Your task to perform on an android device: check android version Image 0: 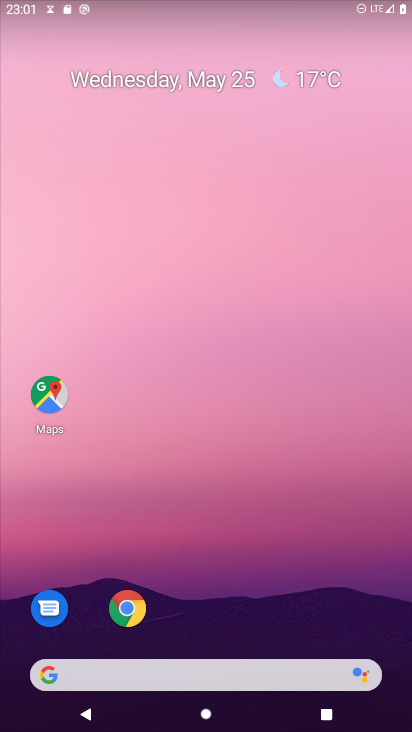
Step 0: drag from (257, 467) to (163, 98)
Your task to perform on an android device: check android version Image 1: 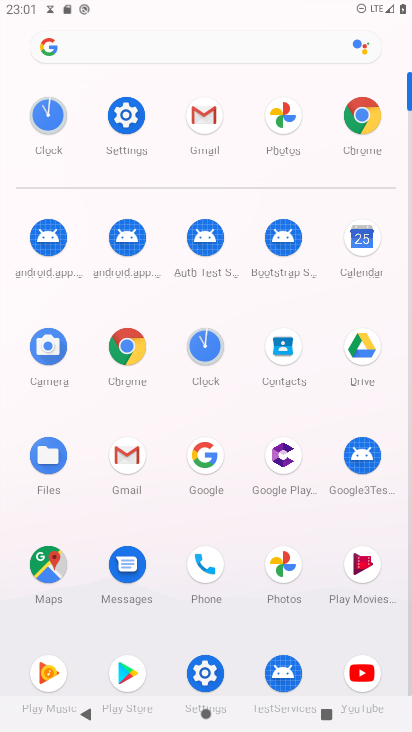
Step 1: click (208, 672)
Your task to perform on an android device: check android version Image 2: 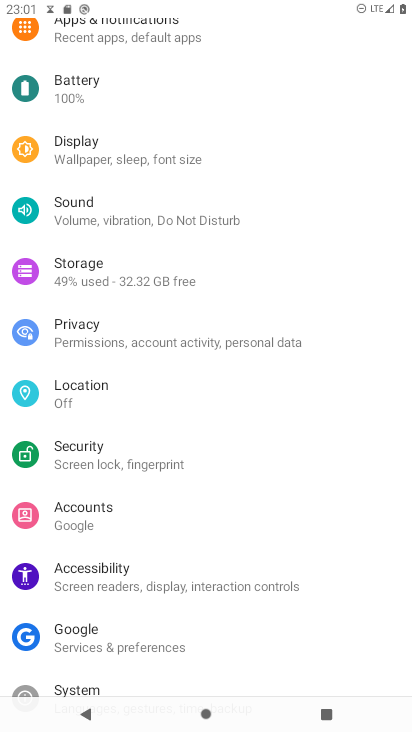
Step 2: drag from (250, 562) to (254, 23)
Your task to perform on an android device: check android version Image 3: 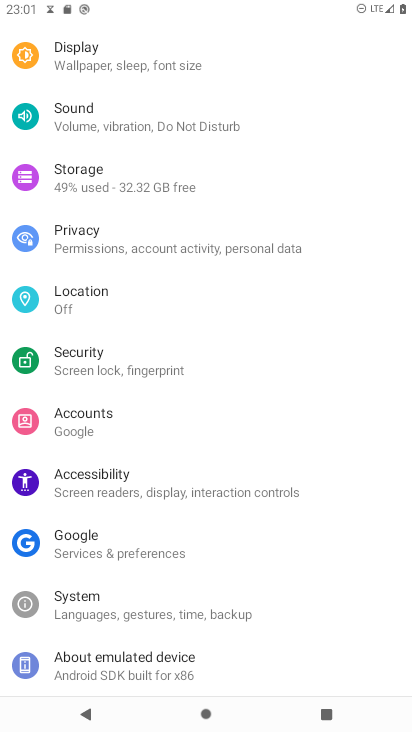
Step 3: click (179, 663)
Your task to perform on an android device: check android version Image 4: 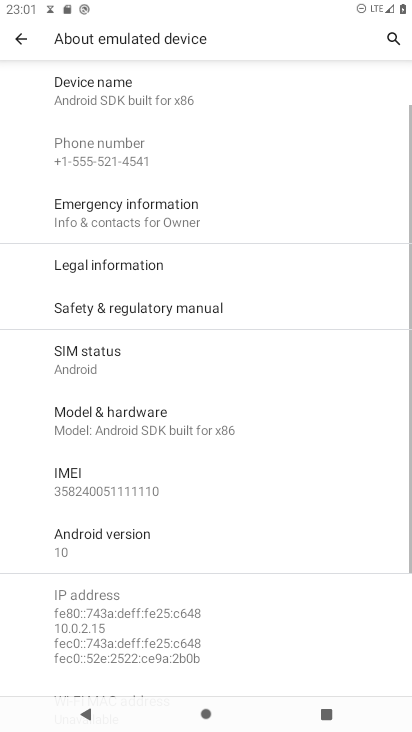
Step 4: click (198, 542)
Your task to perform on an android device: check android version Image 5: 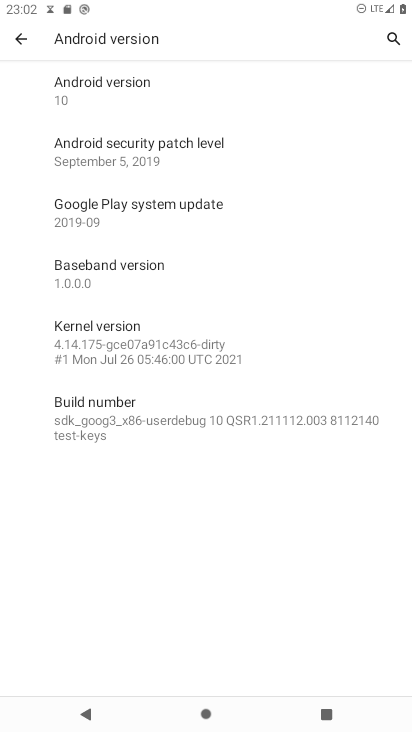
Step 5: task complete